Your task to perform on an android device: Open Wikipedia Image 0: 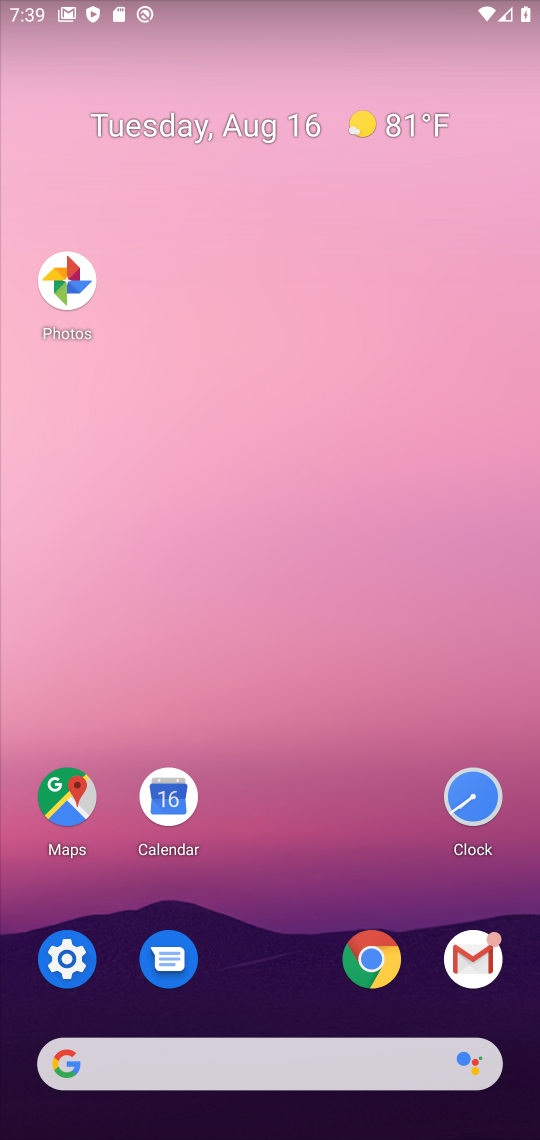
Step 0: click (366, 957)
Your task to perform on an android device: Open Wikipedia Image 1: 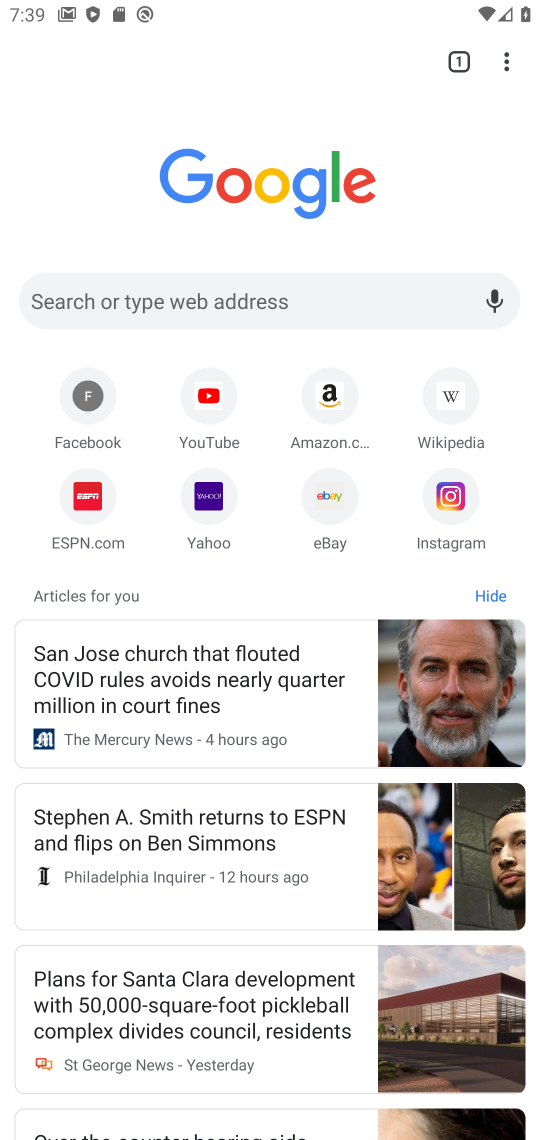
Step 1: click (451, 390)
Your task to perform on an android device: Open Wikipedia Image 2: 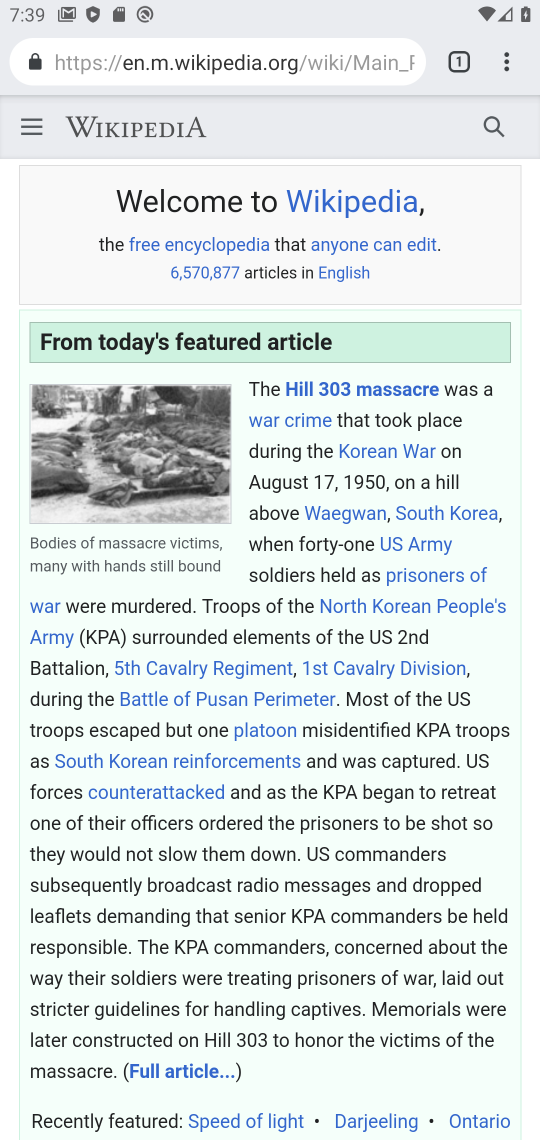
Step 2: task complete